Your task to perform on an android device: delete the emails in spam in the gmail app Image 0: 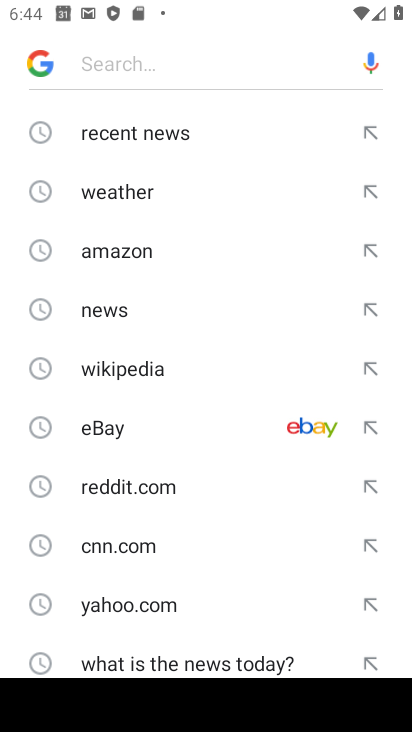
Step 0: press home button
Your task to perform on an android device: delete the emails in spam in the gmail app Image 1: 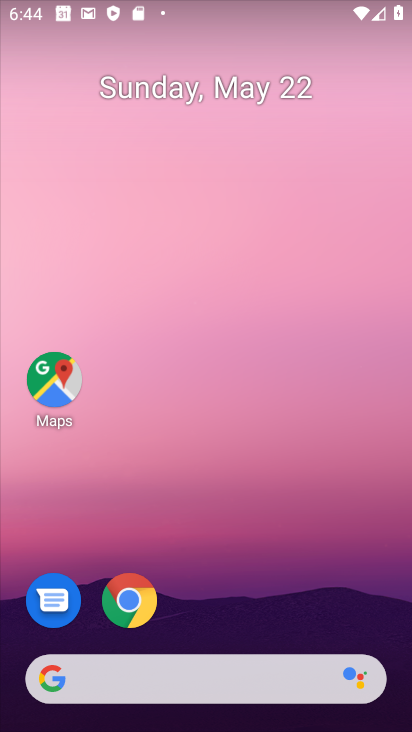
Step 1: drag from (320, 616) to (299, 53)
Your task to perform on an android device: delete the emails in spam in the gmail app Image 2: 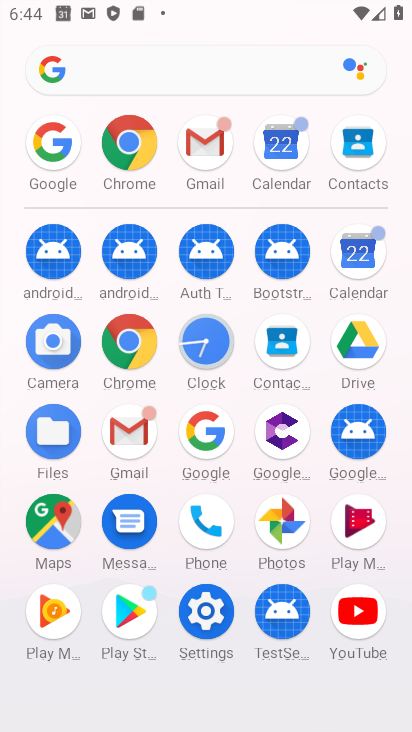
Step 2: click (138, 438)
Your task to perform on an android device: delete the emails in spam in the gmail app Image 3: 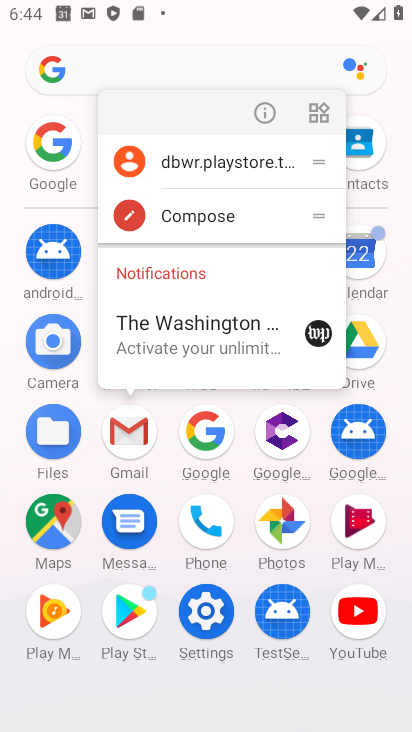
Step 3: click (142, 445)
Your task to perform on an android device: delete the emails in spam in the gmail app Image 4: 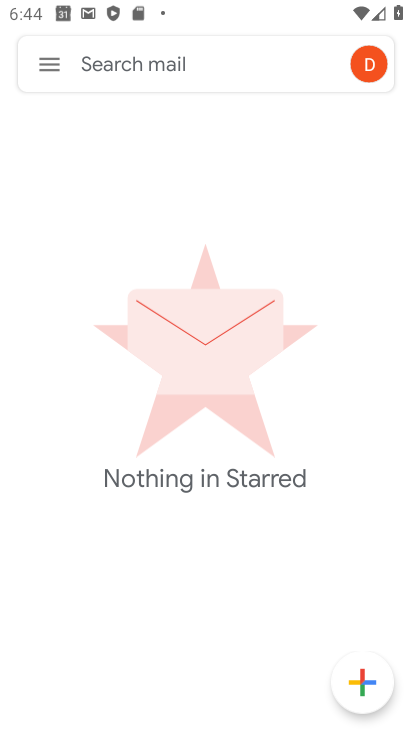
Step 4: click (67, 87)
Your task to perform on an android device: delete the emails in spam in the gmail app Image 5: 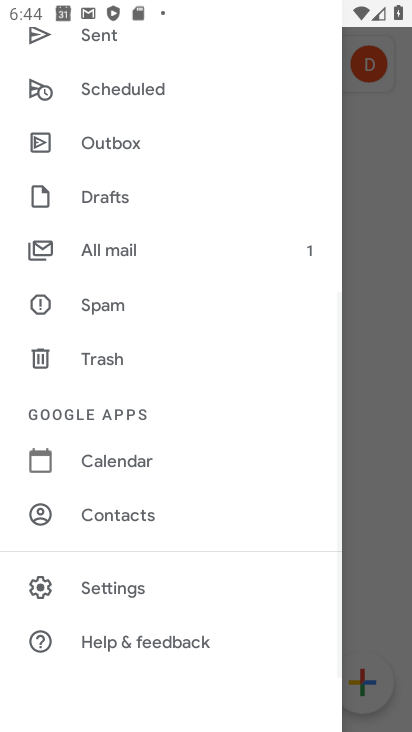
Step 5: click (96, 318)
Your task to perform on an android device: delete the emails in spam in the gmail app Image 6: 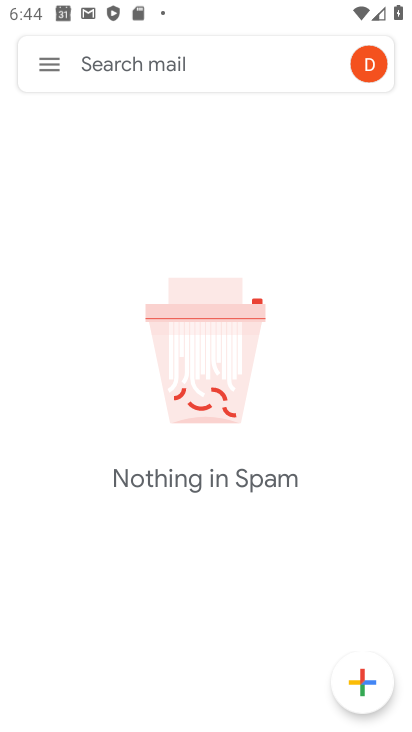
Step 6: task complete